Your task to perform on an android device: Go to CNN.com Image 0: 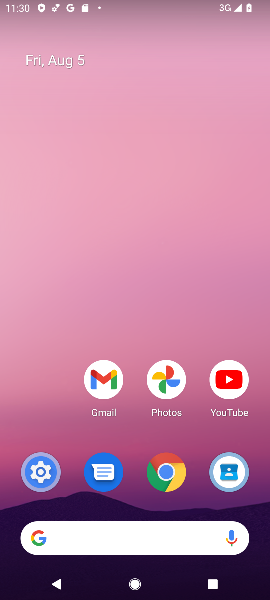
Step 0: click (163, 468)
Your task to perform on an android device: Go to CNN.com Image 1: 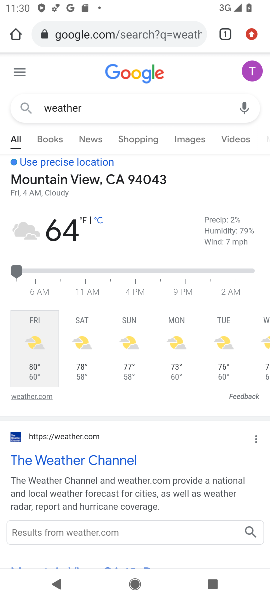
Step 1: click (124, 39)
Your task to perform on an android device: Go to CNN.com Image 2: 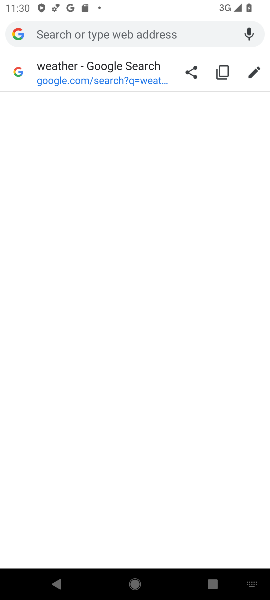
Step 2: type "cnn.com"
Your task to perform on an android device: Go to CNN.com Image 3: 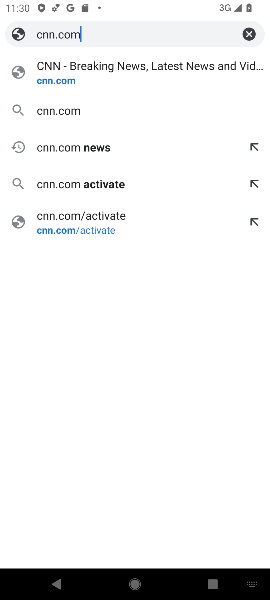
Step 3: click (207, 63)
Your task to perform on an android device: Go to CNN.com Image 4: 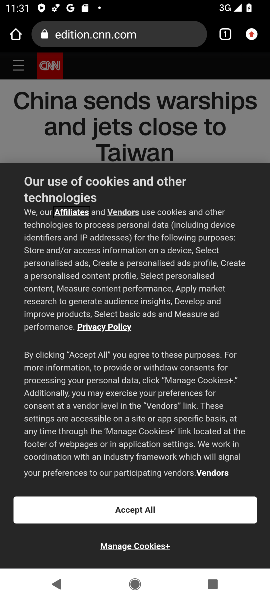
Step 4: task complete